Your task to perform on an android device: turn off priority inbox in the gmail app Image 0: 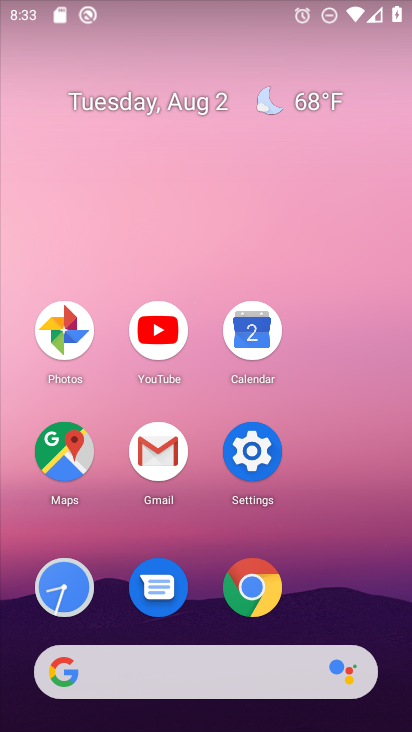
Step 0: click (160, 445)
Your task to perform on an android device: turn off priority inbox in the gmail app Image 1: 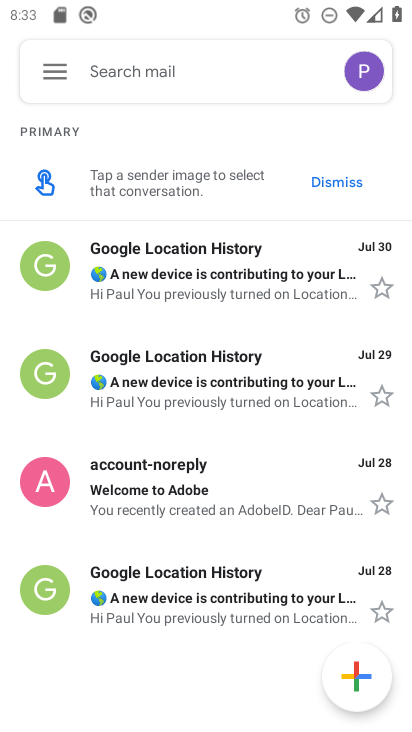
Step 1: click (50, 64)
Your task to perform on an android device: turn off priority inbox in the gmail app Image 2: 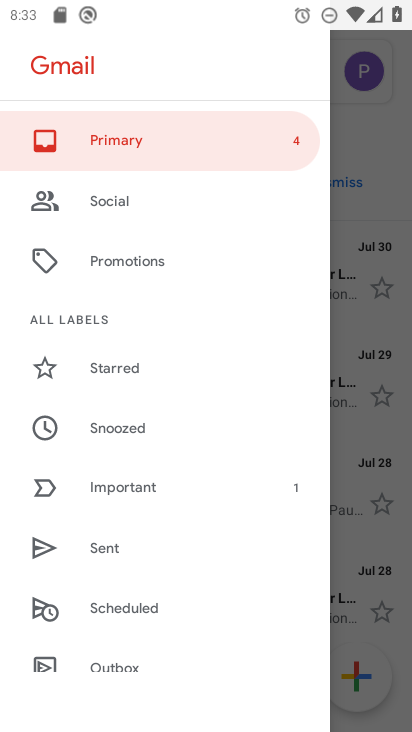
Step 2: drag from (215, 638) to (232, 78)
Your task to perform on an android device: turn off priority inbox in the gmail app Image 3: 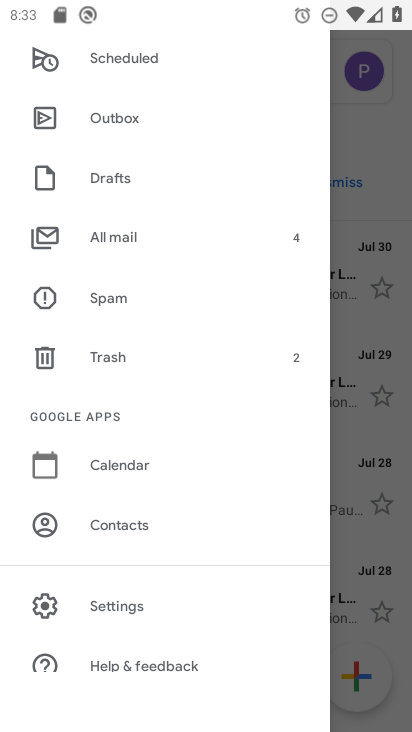
Step 3: click (109, 600)
Your task to perform on an android device: turn off priority inbox in the gmail app Image 4: 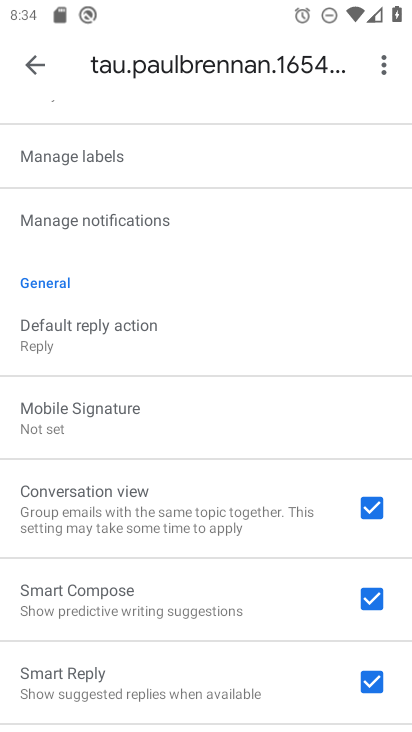
Step 4: drag from (243, 189) to (270, 650)
Your task to perform on an android device: turn off priority inbox in the gmail app Image 5: 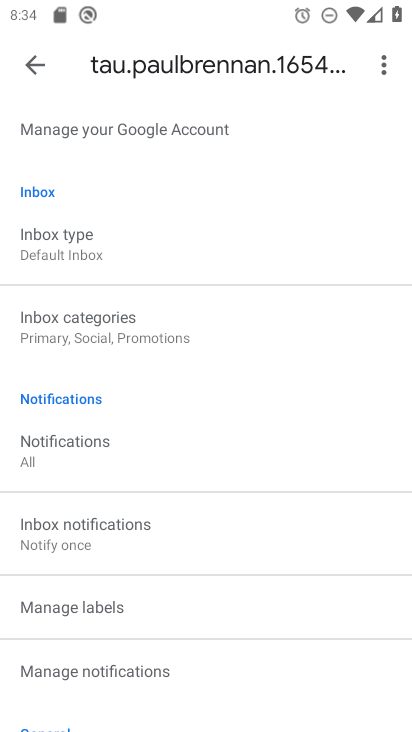
Step 5: click (56, 243)
Your task to perform on an android device: turn off priority inbox in the gmail app Image 6: 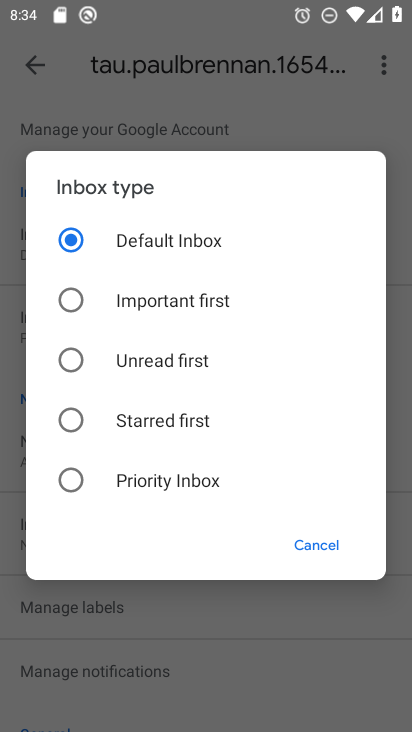
Step 6: task complete